Your task to perform on an android device: turn off location Image 0: 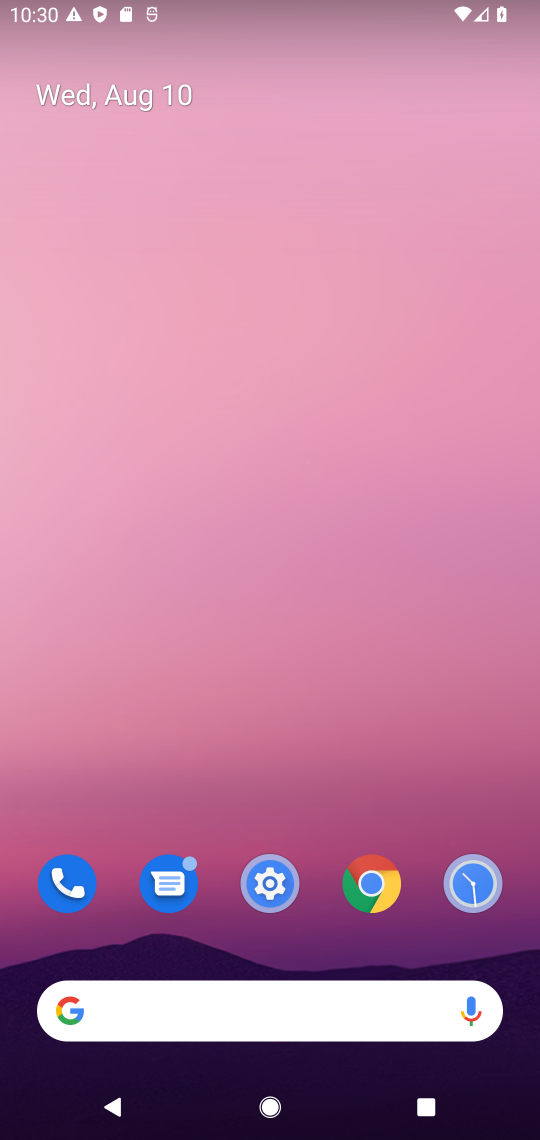
Step 0: drag from (297, 879) to (295, 43)
Your task to perform on an android device: turn off location Image 1: 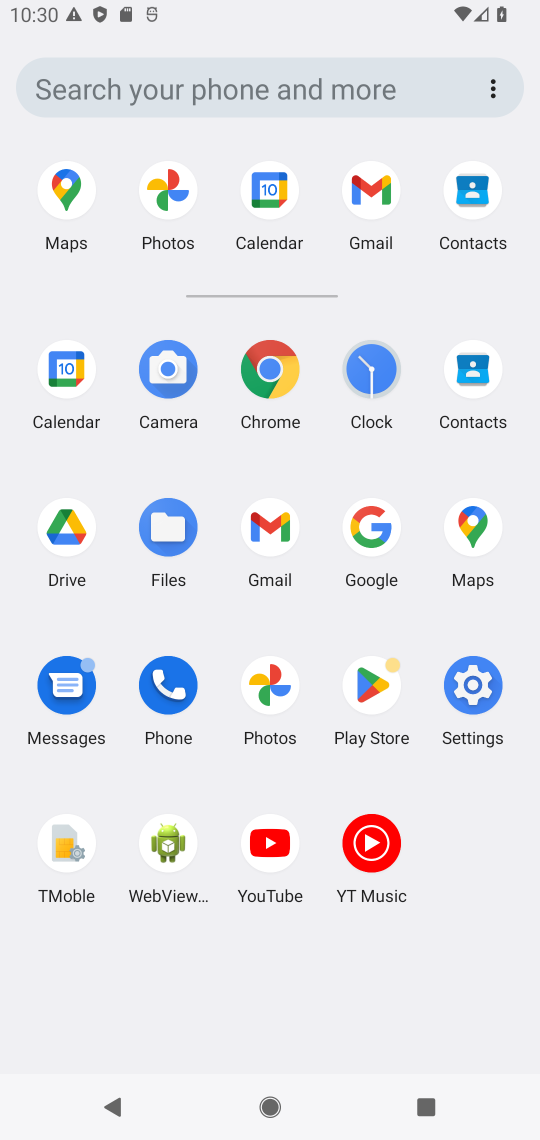
Step 1: click (469, 686)
Your task to perform on an android device: turn off location Image 2: 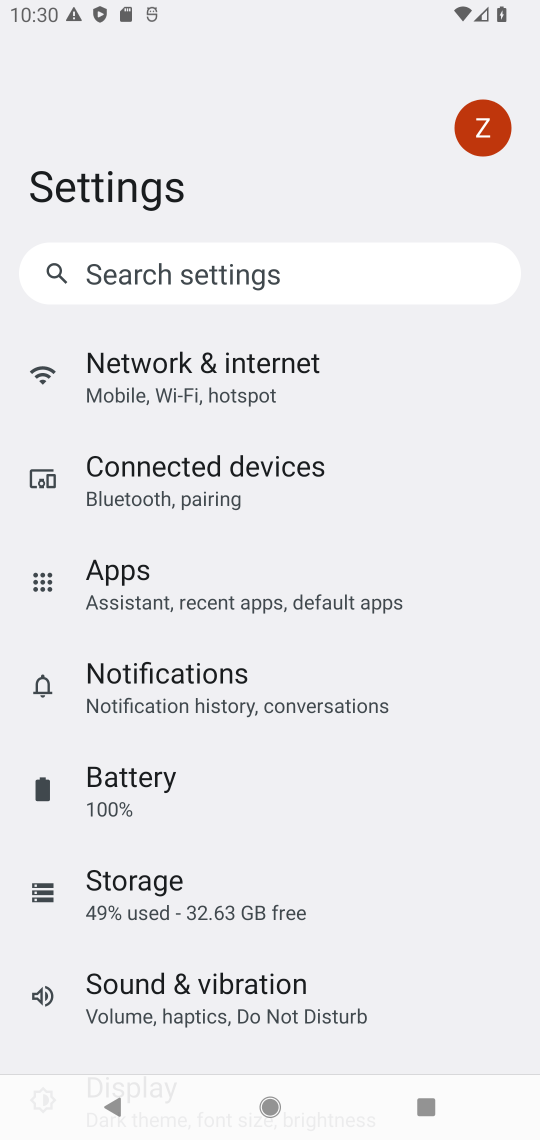
Step 2: drag from (378, 946) to (405, 415)
Your task to perform on an android device: turn off location Image 3: 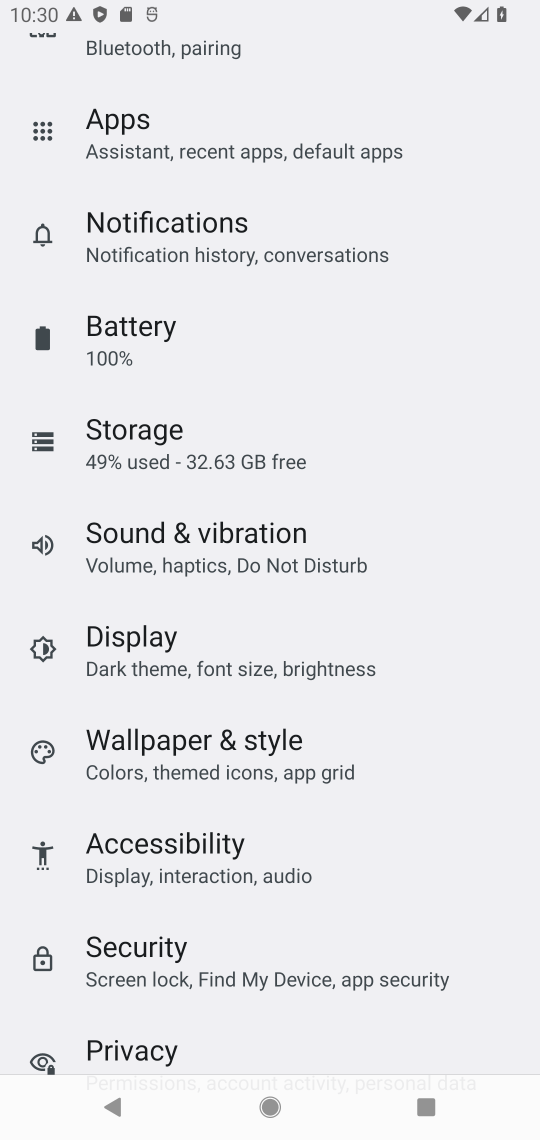
Step 3: drag from (321, 1009) to (388, 452)
Your task to perform on an android device: turn off location Image 4: 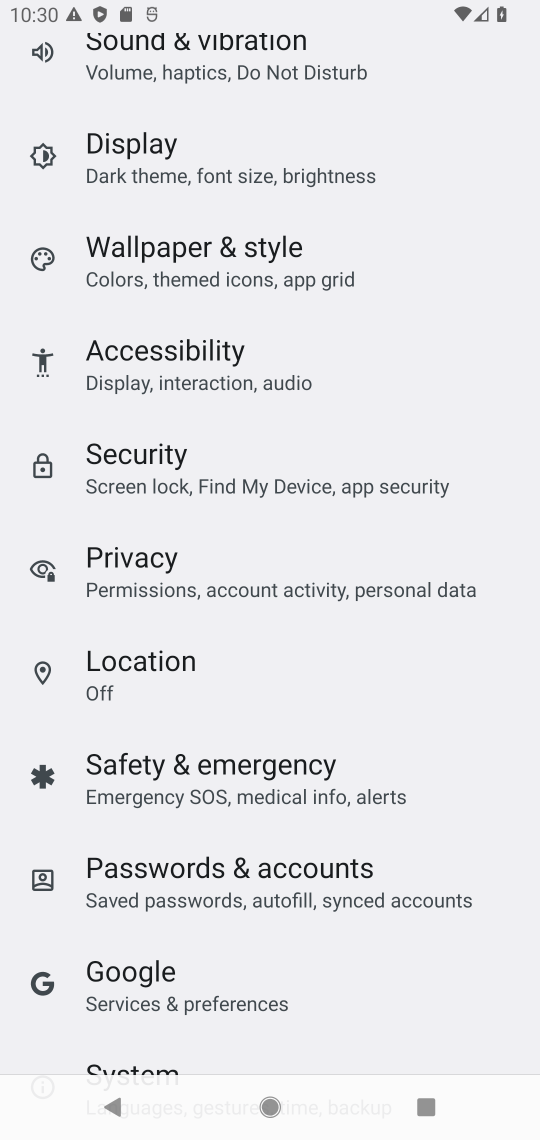
Step 4: click (167, 659)
Your task to perform on an android device: turn off location Image 5: 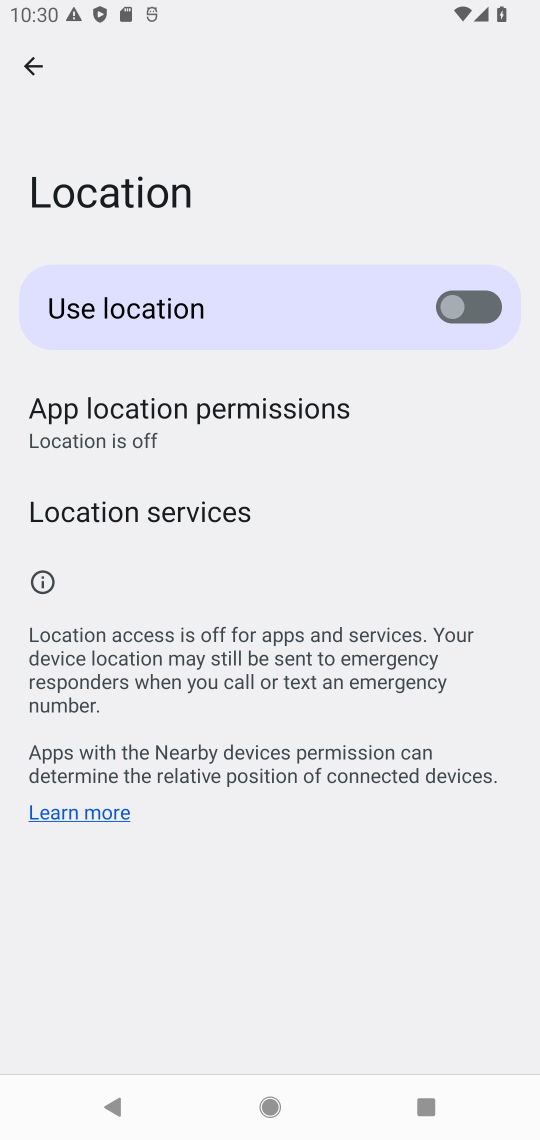
Step 5: task complete